Your task to perform on an android device: Open wifi settings Image 0: 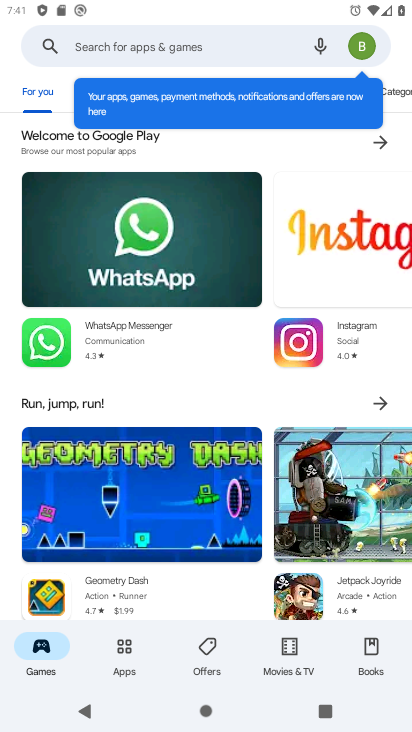
Step 0: press home button
Your task to perform on an android device: Open wifi settings Image 1: 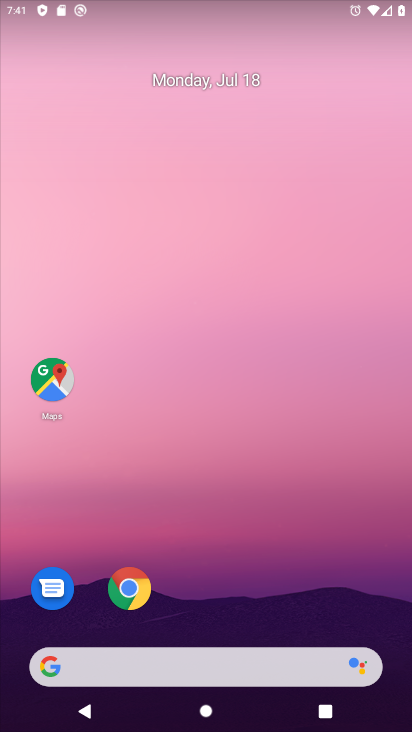
Step 1: drag from (264, 603) to (261, 44)
Your task to perform on an android device: Open wifi settings Image 2: 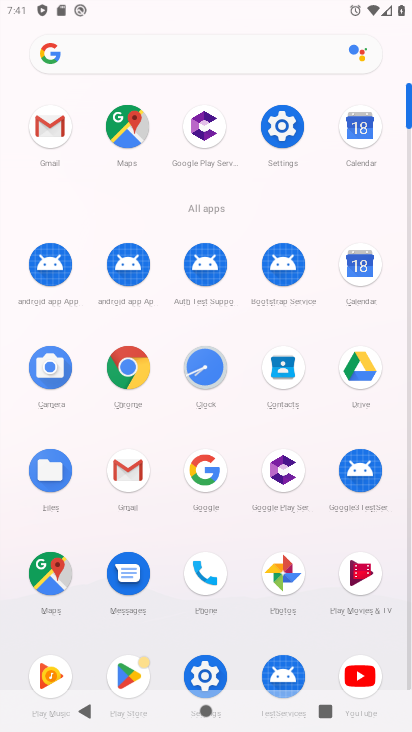
Step 2: click (205, 672)
Your task to perform on an android device: Open wifi settings Image 3: 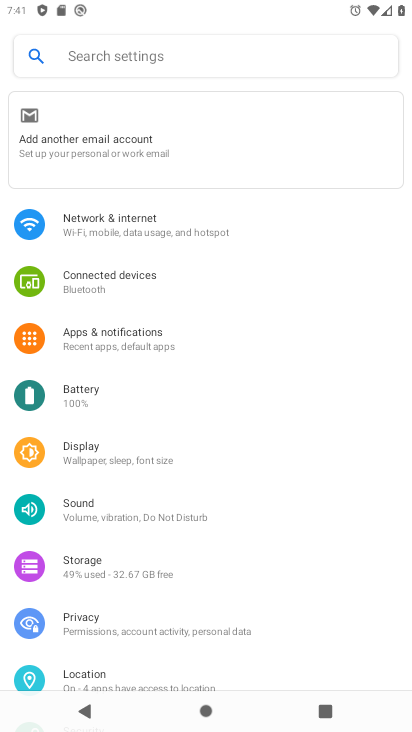
Step 3: click (142, 224)
Your task to perform on an android device: Open wifi settings Image 4: 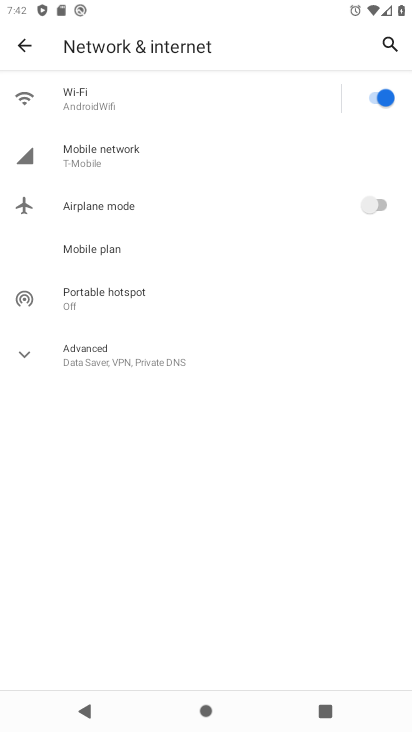
Step 4: click (147, 95)
Your task to perform on an android device: Open wifi settings Image 5: 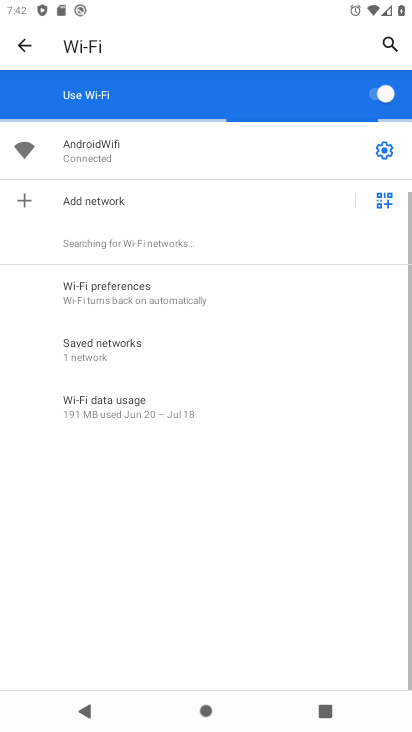
Step 5: task complete